Your task to perform on an android device: Open Reddit.com Image 0: 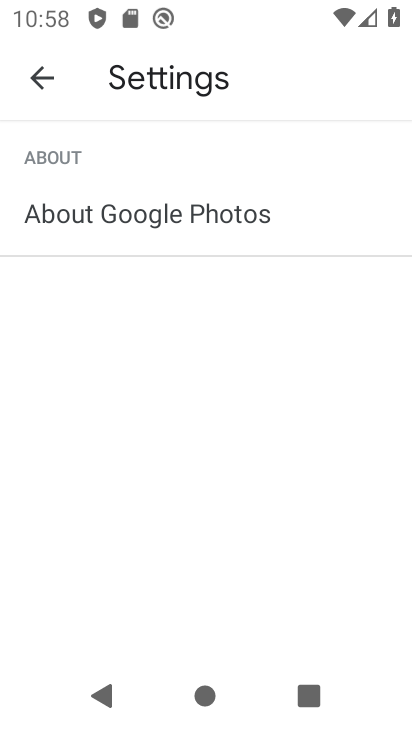
Step 0: press home button
Your task to perform on an android device: Open Reddit.com Image 1: 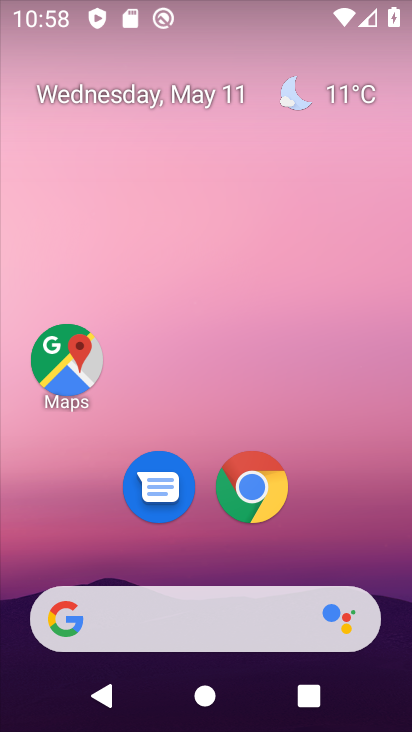
Step 1: click (230, 514)
Your task to perform on an android device: Open Reddit.com Image 2: 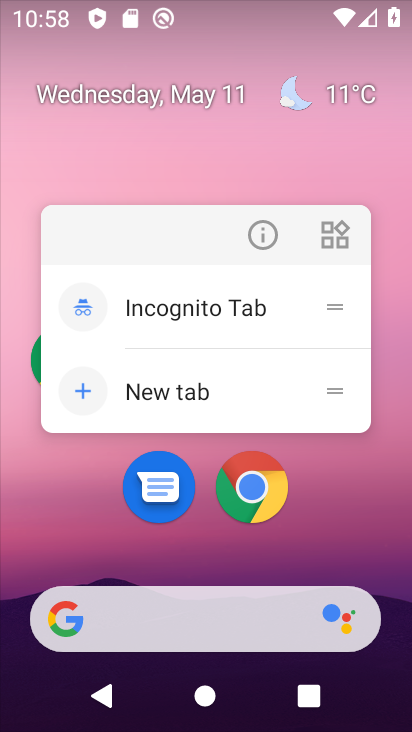
Step 2: click (262, 494)
Your task to perform on an android device: Open Reddit.com Image 3: 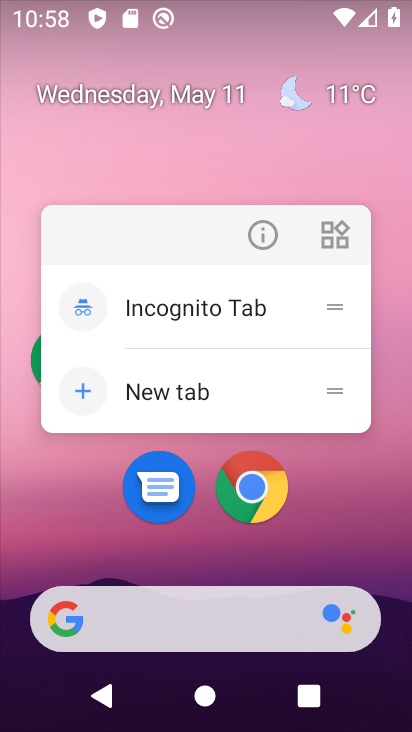
Step 3: click (251, 505)
Your task to perform on an android device: Open Reddit.com Image 4: 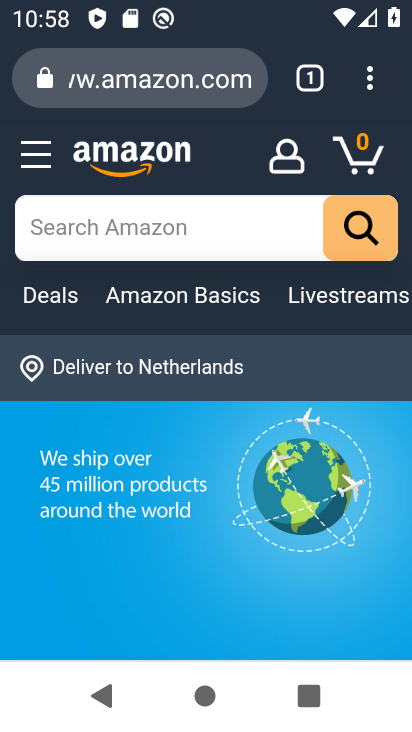
Step 4: click (157, 77)
Your task to perform on an android device: Open Reddit.com Image 5: 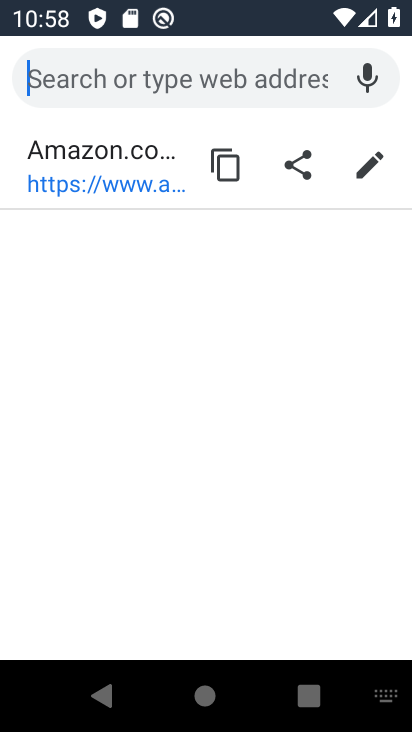
Step 5: type "Reddit.com"
Your task to perform on an android device: Open Reddit.com Image 6: 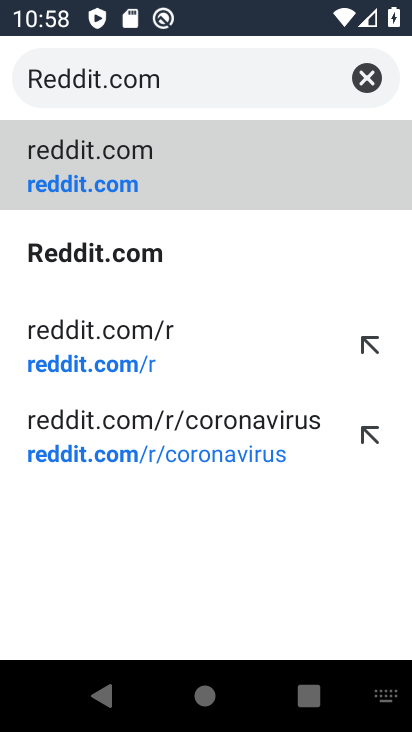
Step 6: click (100, 178)
Your task to perform on an android device: Open Reddit.com Image 7: 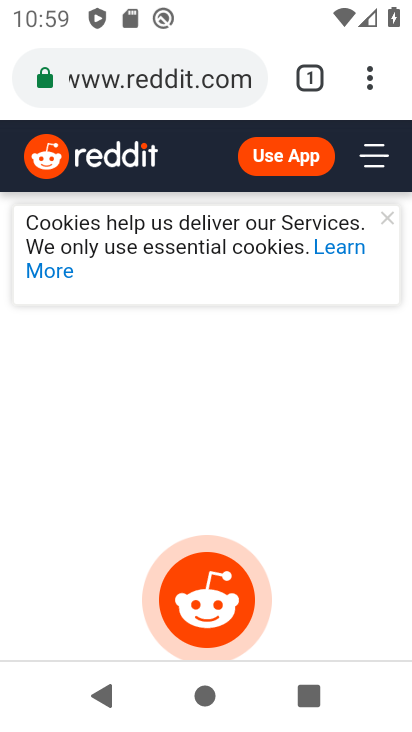
Step 7: task complete